Your task to perform on an android device: Search for Mexican restaurants on Maps Image 0: 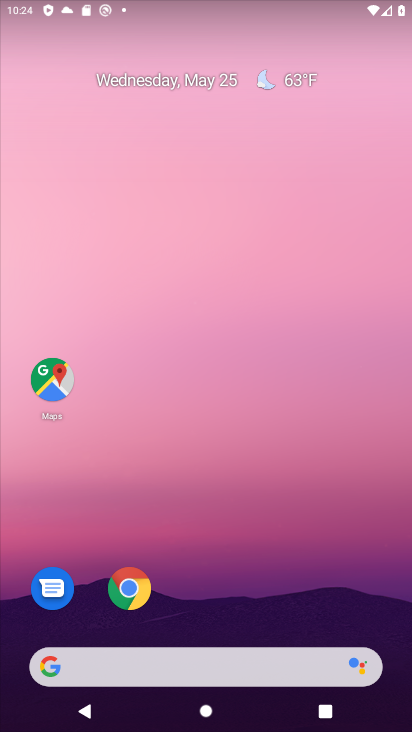
Step 0: click (59, 381)
Your task to perform on an android device: Search for Mexican restaurants on Maps Image 1: 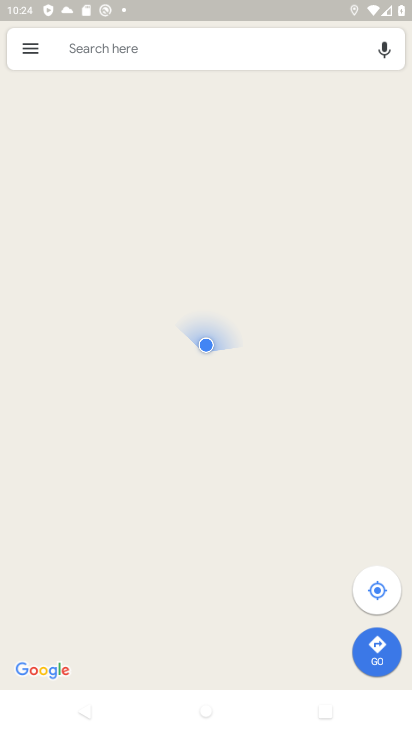
Step 1: click (202, 49)
Your task to perform on an android device: Search for Mexican restaurants on Maps Image 2: 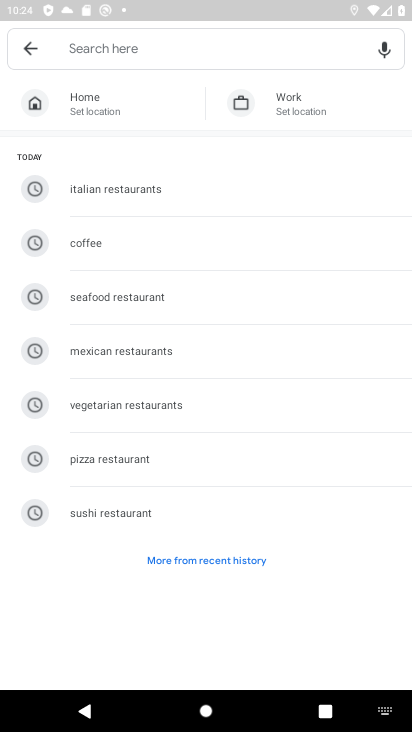
Step 2: click (127, 350)
Your task to perform on an android device: Search for Mexican restaurants on Maps Image 3: 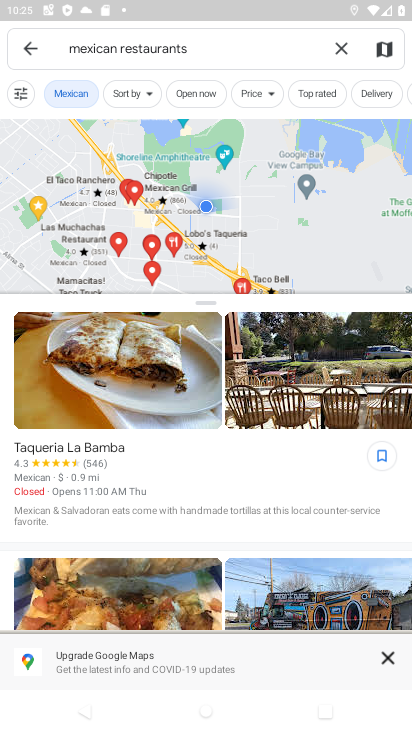
Step 3: task complete